Your task to perform on an android device: toggle sleep mode Image 0: 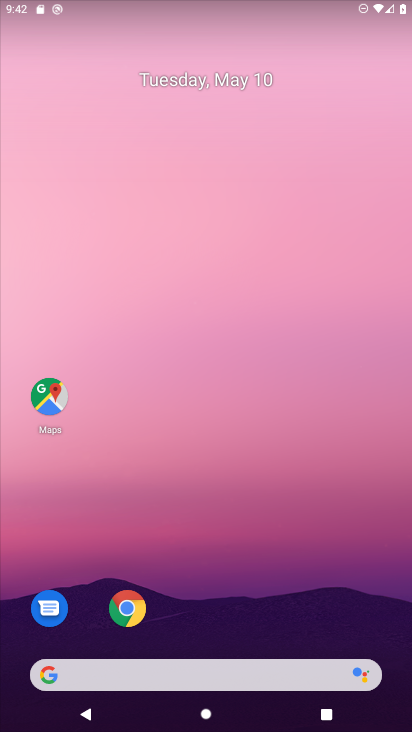
Step 0: drag from (386, 615) to (331, 94)
Your task to perform on an android device: toggle sleep mode Image 1: 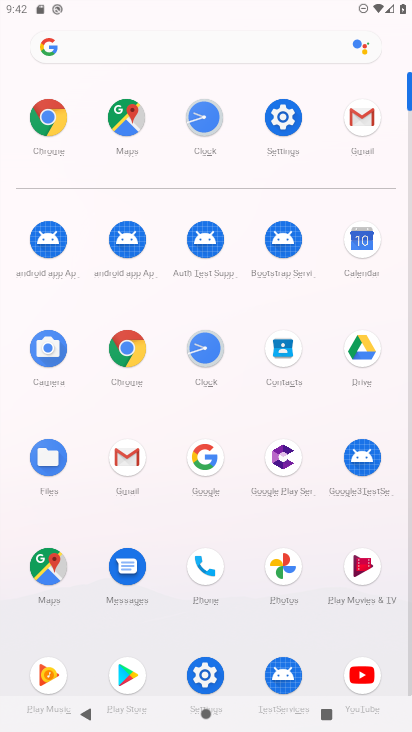
Step 1: click (202, 664)
Your task to perform on an android device: toggle sleep mode Image 2: 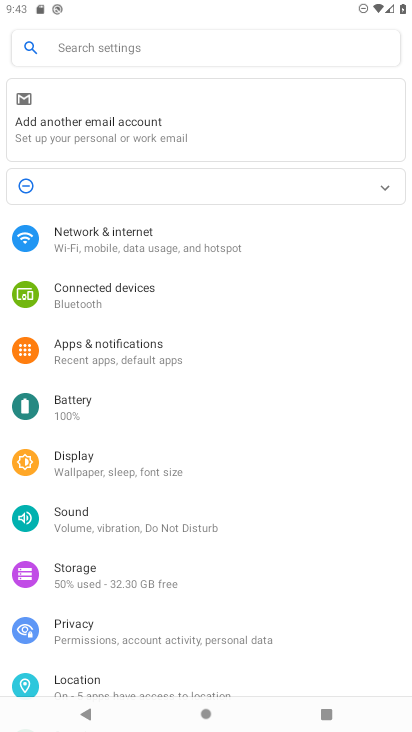
Step 2: task complete